Your task to perform on an android device: toggle javascript in the chrome app Image 0: 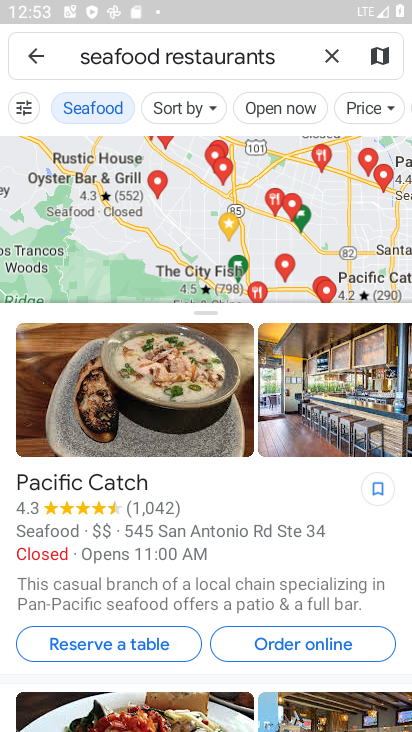
Step 0: press home button
Your task to perform on an android device: toggle javascript in the chrome app Image 1: 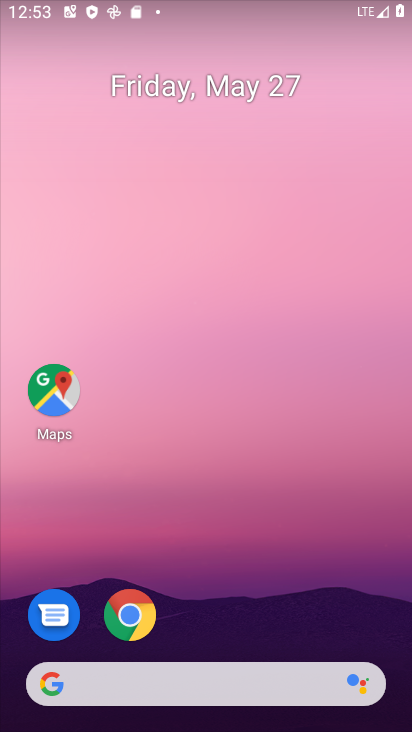
Step 1: drag from (286, 688) to (398, 9)
Your task to perform on an android device: toggle javascript in the chrome app Image 2: 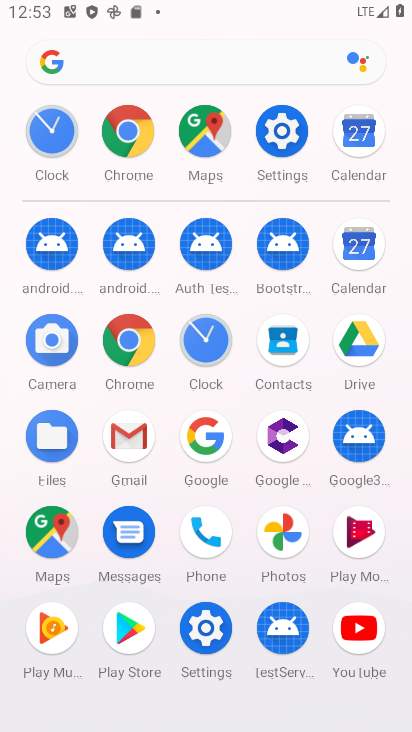
Step 2: click (142, 340)
Your task to perform on an android device: toggle javascript in the chrome app Image 3: 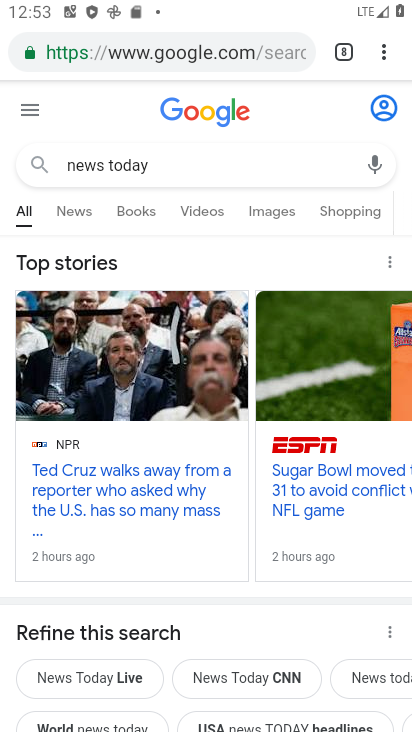
Step 3: drag from (375, 67) to (214, 575)
Your task to perform on an android device: toggle javascript in the chrome app Image 4: 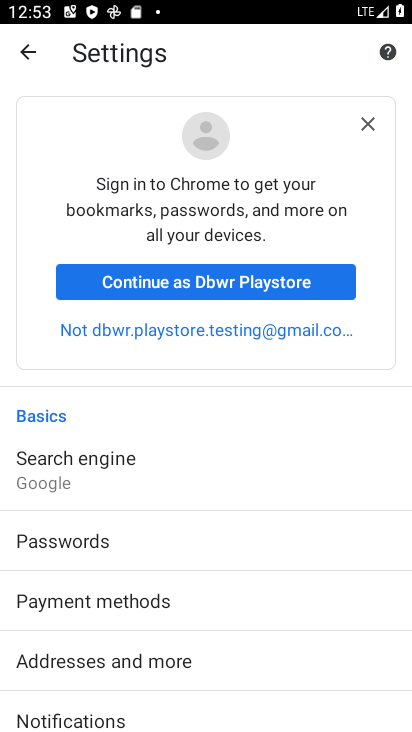
Step 4: drag from (189, 693) to (268, 191)
Your task to perform on an android device: toggle javascript in the chrome app Image 5: 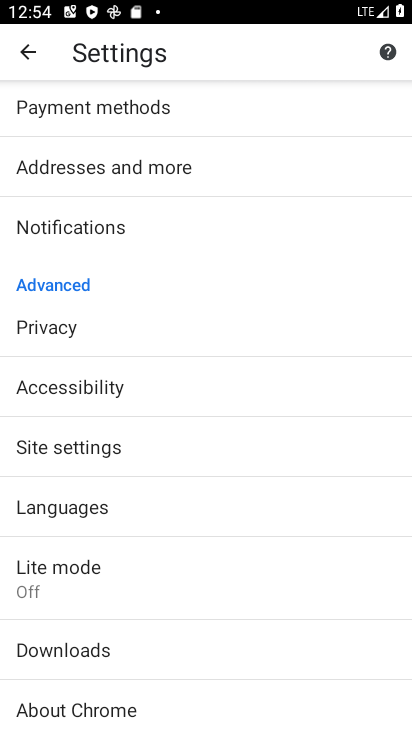
Step 5: click (120, 456)
Your task to perform on an android device: toggle javascript in the chrome app Image 6: 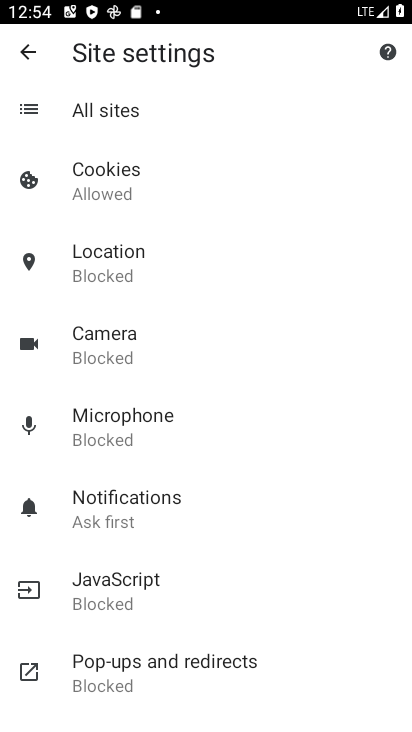
Step 6: click (93, 589)
Your task to perform on an android device: toggle javascript in the chrome app Image 7: 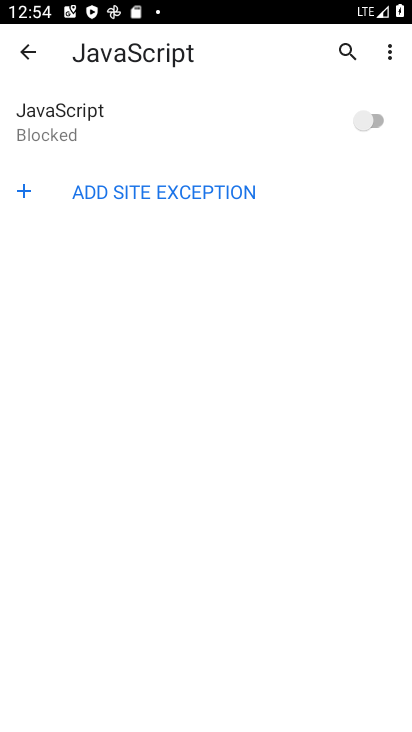
Step 7: click (374, 120)
Your task to perform on an android device: toggle javascript in the chrome app Image 8: 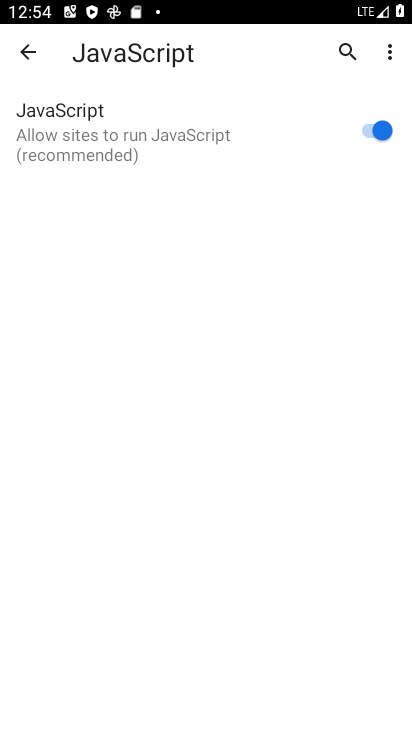
Step 8: task complete